Your task to perform on an android device: Open Reddit.com Image 0: 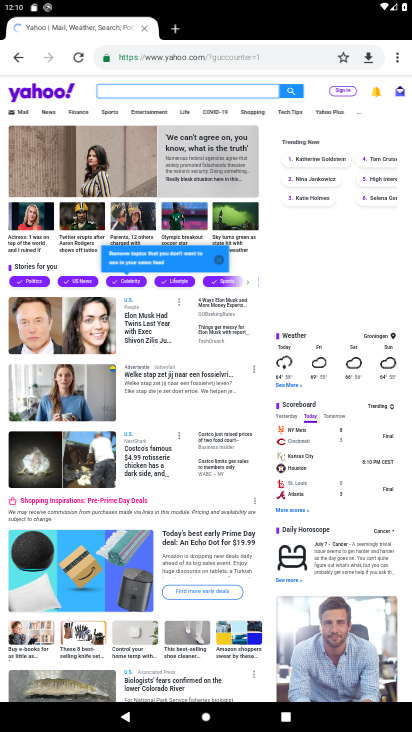
Step 0: drag from (256, 226) to (235, 43)
Your task to perform on an android device: Open Reddit.com Image 1: 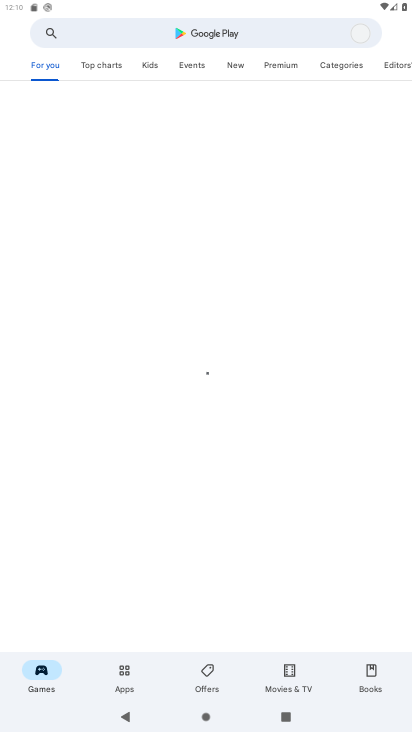
Step 1: press home button
Your task to perform on an android device: Open Reddit.com Image 2: 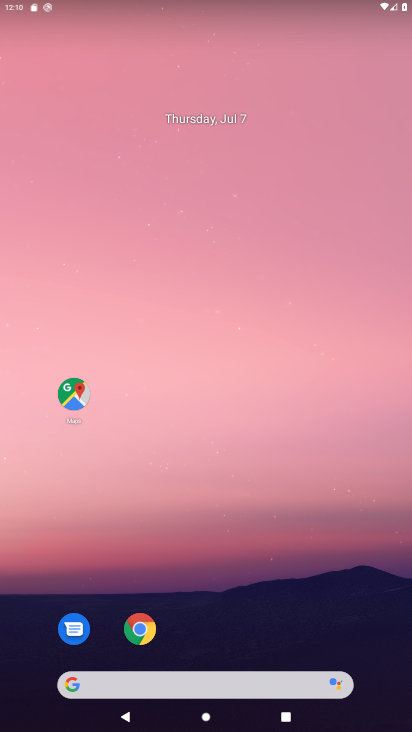
Step 2: click (149, 629)
Your task to perform on an android device: Open Reddit.com Image 3: 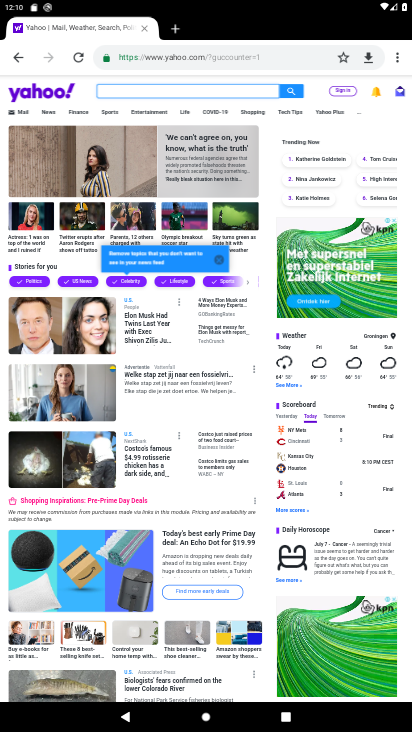
Step 3: click (185, 57)
Your task to perform on an android device: Open Reddit.com Image 4: 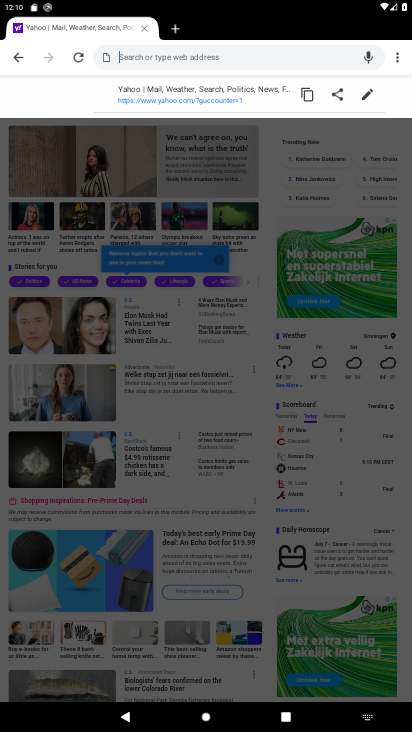
Step 4: type "reddit.com"
Your task to perform on an android device: Open Reddit.com Image 5: 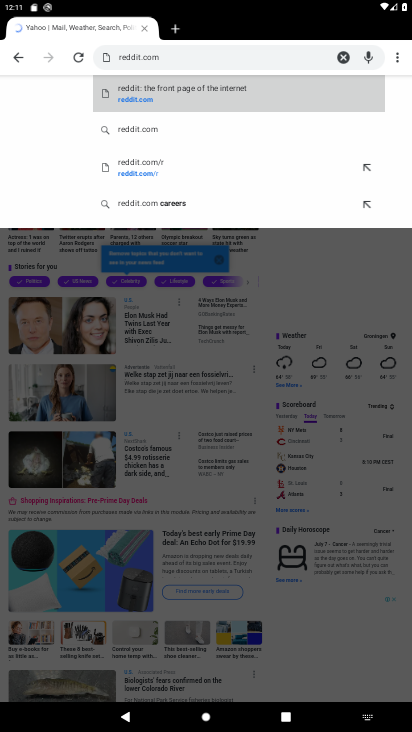
Step 5: click (226, 89)
Your task to perform on an android device: Open Reddit.com Image 6: 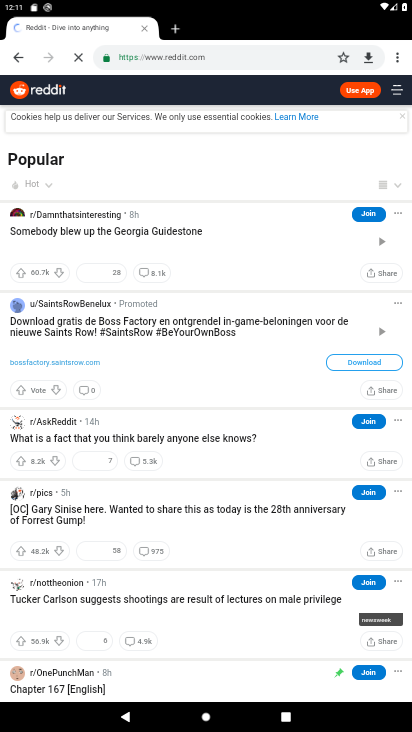
Step 6: task complete